Your task to perform on an android device: Open the calendar app, open the side menu, and click the "Day" option Image 0: 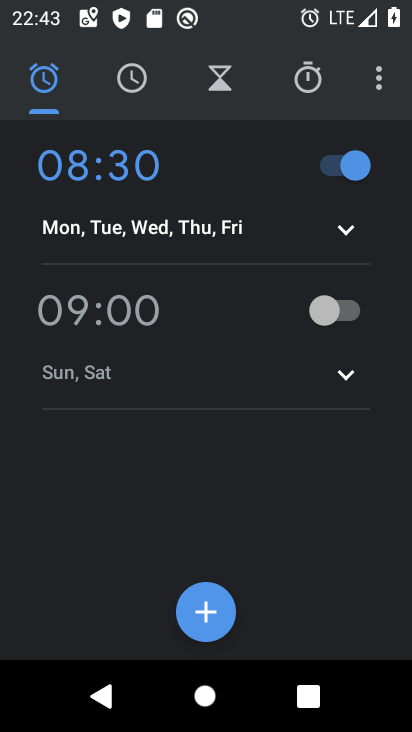
Step 0: press back button
Your task to perform on an android device: Open the calendar app, open the side menu, and click the "Day" option Image 1: 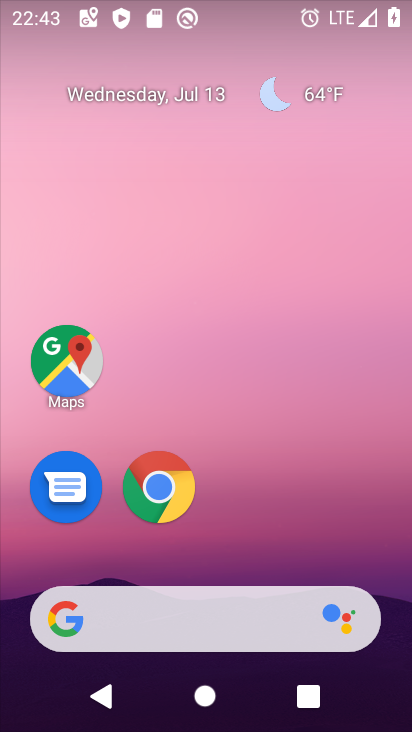
Step 1: drag from (229, 554) to (287, 27)
Your task to perform on an android device: Open the calendar app, open the side menu, and click the "Day" option Image 2: 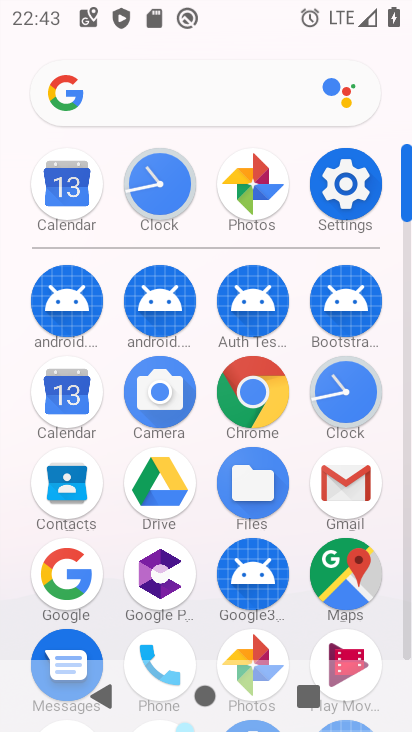
Step 2: click (69, 393)
Your task to perform on an android device: Open the calendar app, open the side menu, and click the "Day" option Image 3: 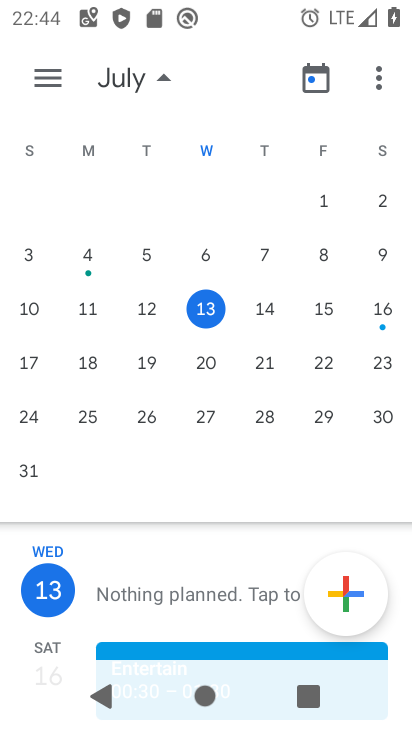
Step 3: click (42, 79)
Your task to perform on an android device: Open the calendar app, open the side menu, and click the "Day" option Image 4: 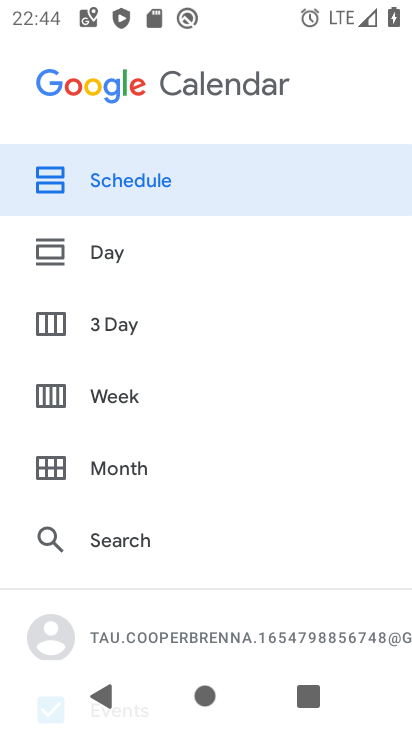
Step 4: click (108, 251)
Your task to perform on an android device: Open the calendar app, open the side menu, and click the "Day" option Image 5: 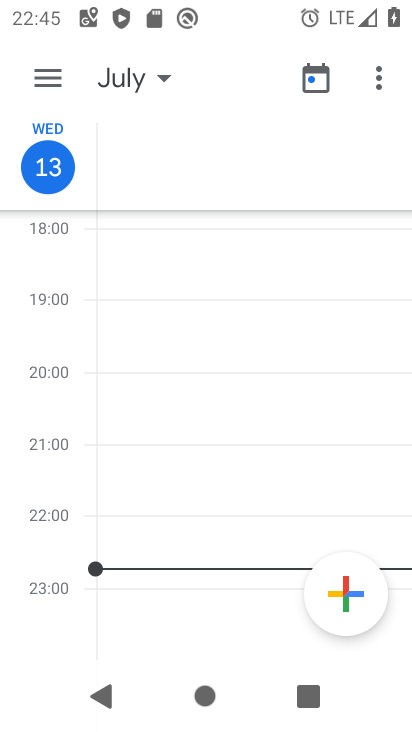
Step 5: click (41, 80)
Your task to perform on an android device: Open the calendar app, open the side menu, and click the "Day" option Image 6: 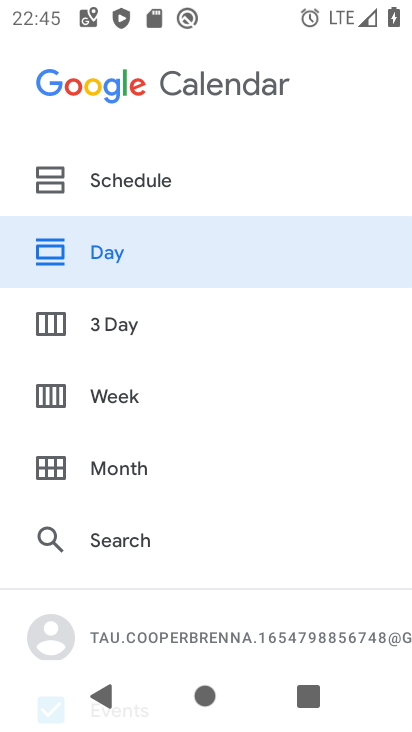
Step 6: click (95, 262)
Your task to perform on an android device: Open the calendar app, open the side menu, and click the "Day" option Image 7: 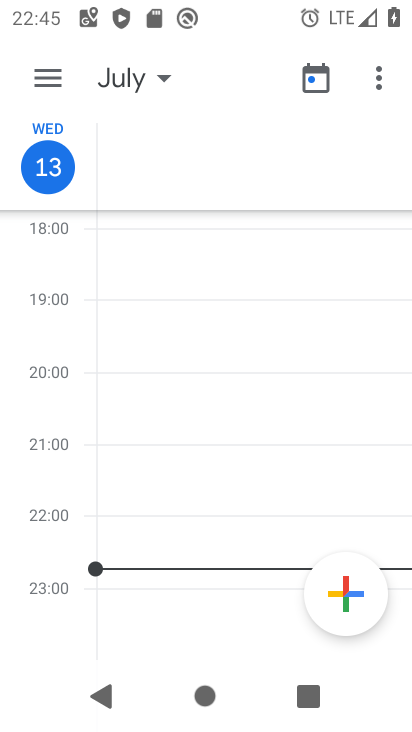
Step 7: task complete